Your task to perform on an android device: Show me recent news Image 0: 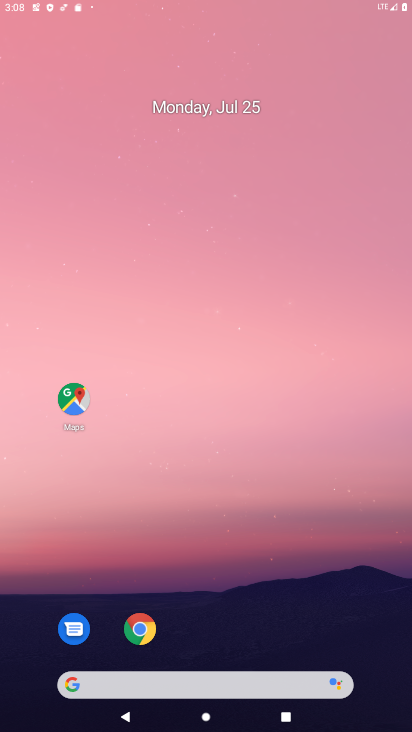
Step 0: drag from (214, 512) to (240, 165)
Your task to perform on an android device: Show me recent news Image 1: 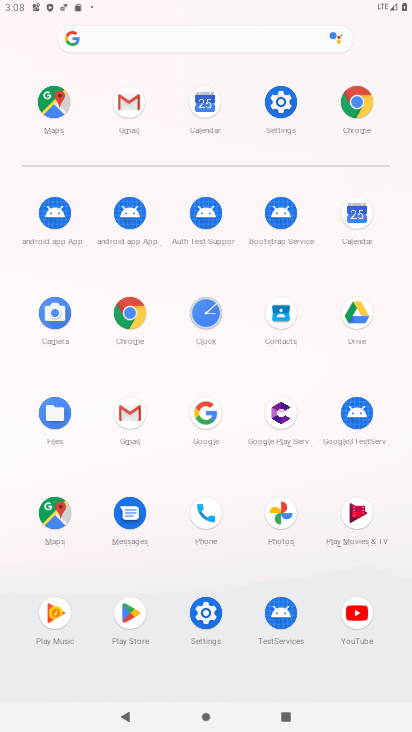
Step 1: click (150, 37)
Your task to perform on an android device: Show me recent news Image 2: 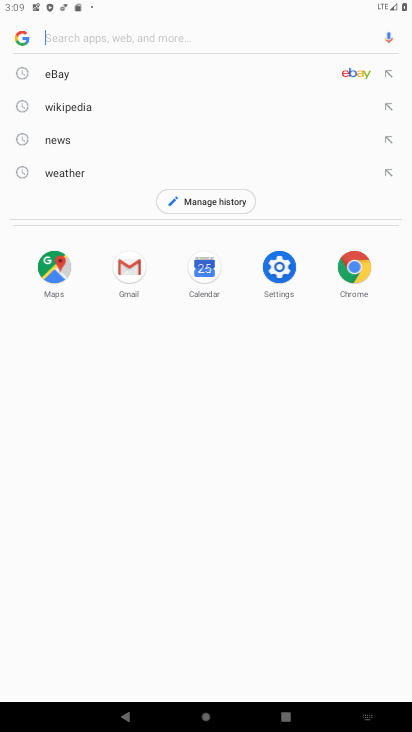
Step 2: type "recent news"
Your task to perform on an android device: Show me recent news Image 3: 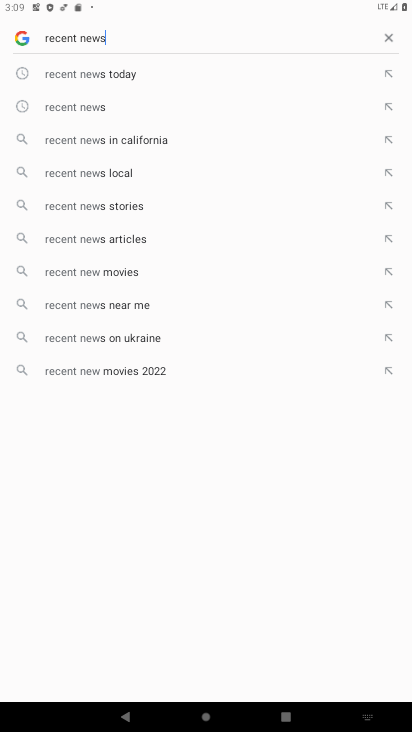
Step 3: type ""
Your task to perform on an android device: Show me recent news Image 4: 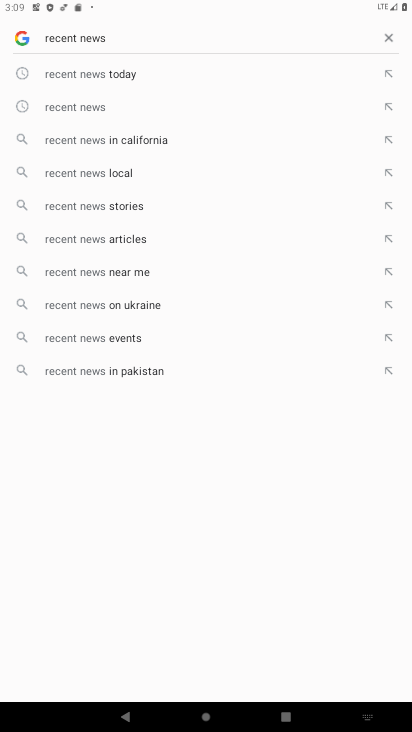
Step 4: click (63, 105)
Your task to perform on an android device: Show me recent news Image 5: 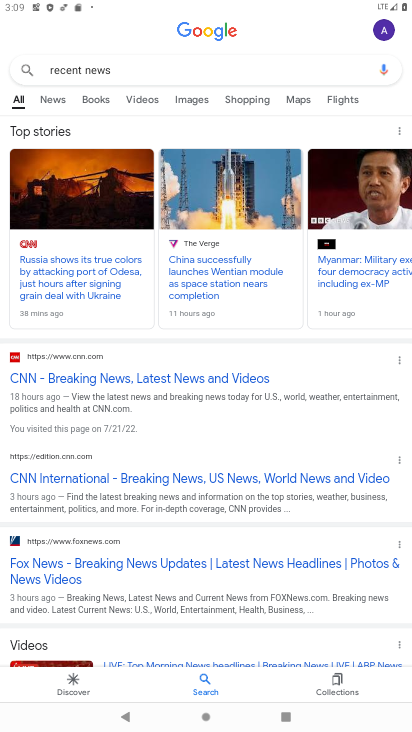
Step 5: click (93, 381)
Your task to perform on an android device: Show me recent news Image 6: 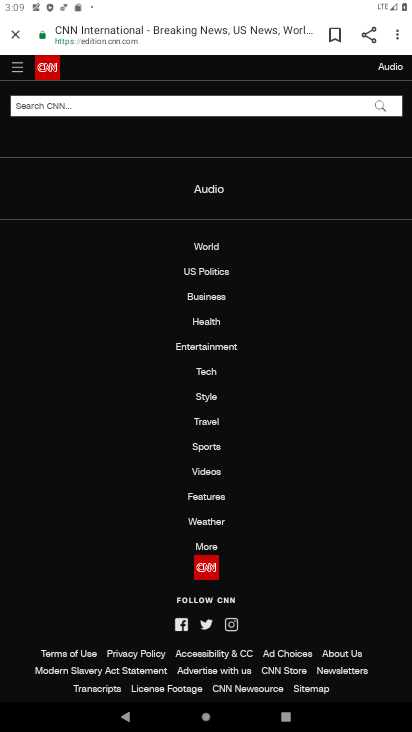
Step 6: task complete